Your task to perform on an android device: turn off notifications settings in the gmail app Image 0: 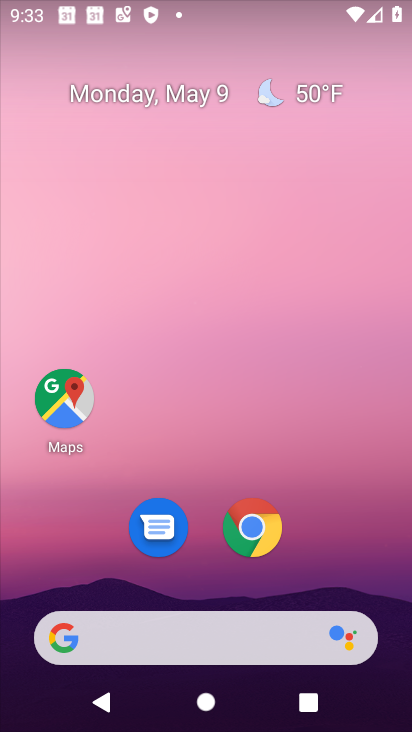
Step 0: drag from (202, 568) to (222, 225)
Your task to perform on an android device: turn off notifications settings in the gmail app Image 1: 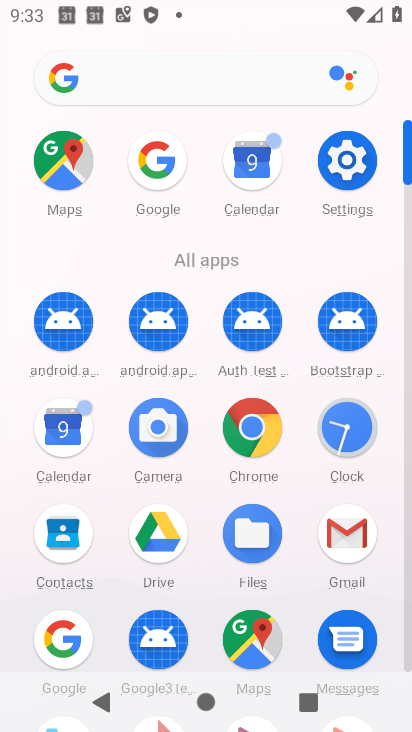
Step 1: click (351, 531)
Your task to perform on an android device: turn off notifications settings in the gmail app Image 2: 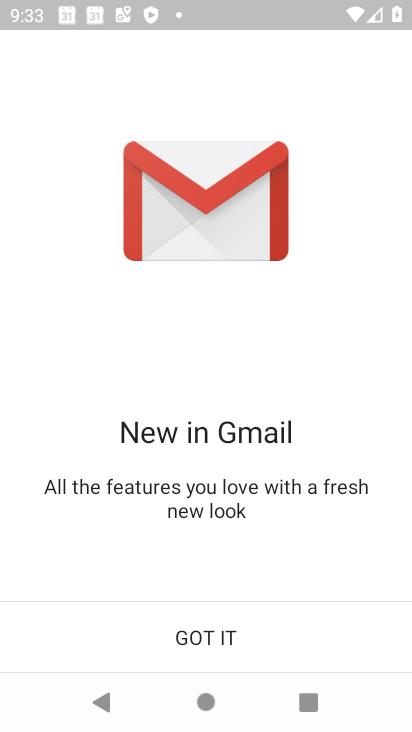
Step 2: click (206, 634)
Your task to perform on an android device: turn off notifications settings in the gmail app Image 3: 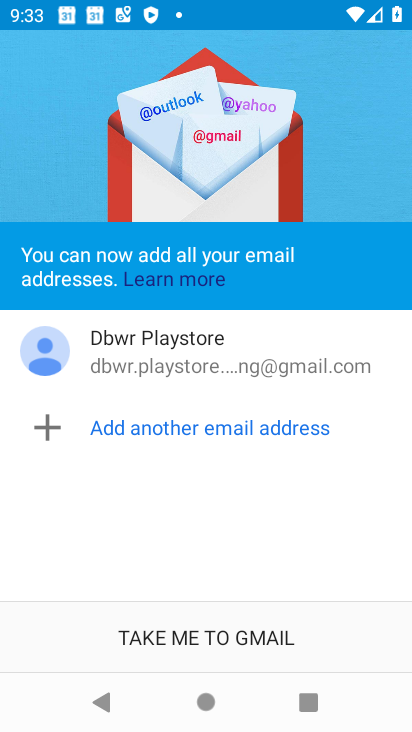
Step 3: click (204, 643)
Your task to perform on an android device: turn off notifications settings in the gmail app Image 4: 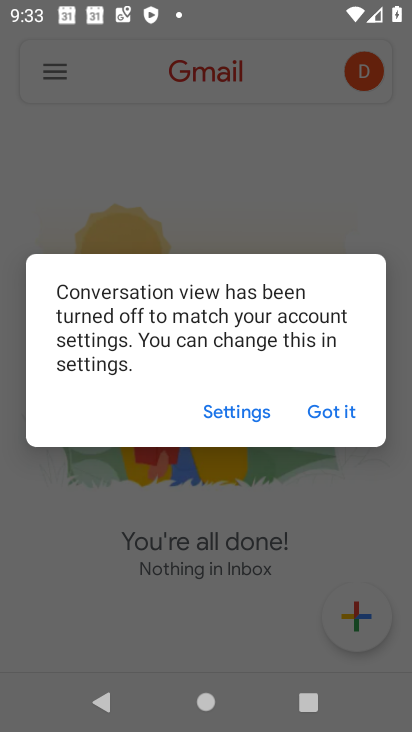
Step 4: click (334, 407)
Your task to perform on an android device: turn off notifications settings in the gmail app Image 5: 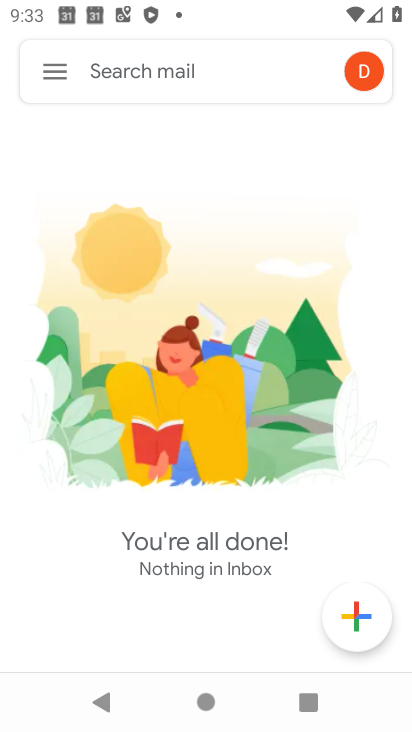
Step 5: click (50, 67)
Your task to perform on an android device: turn off notifications settings in the gmail app Image 6: 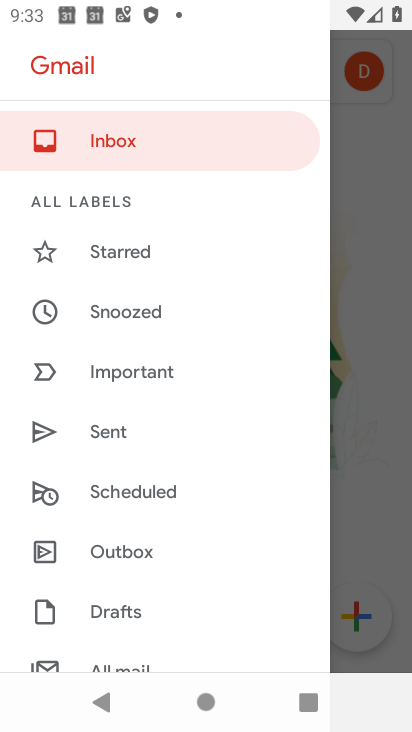
Step 6: drag from (148, 622) to (129, 312)
Your task to perform on an android device: turn off notifications settings in the gmail app Image 7: 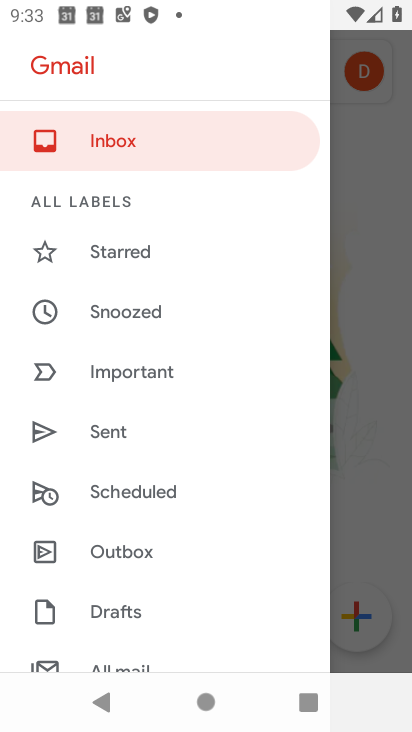
Step 7: drag from (117, 653) to (141, 269)
Your task to perform on an android device: turn off notifications settings in the gmail app Image 8: 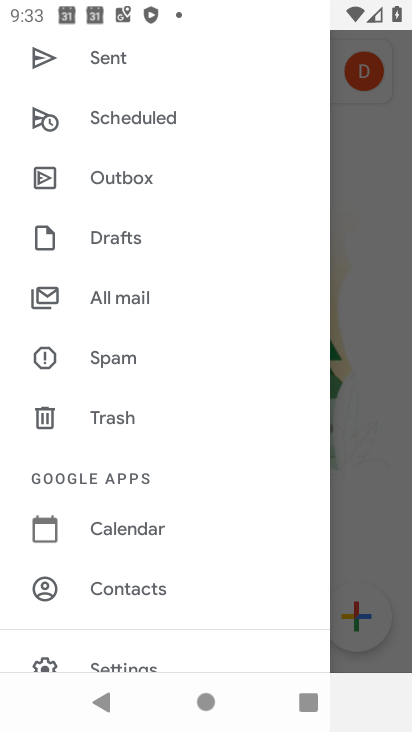
Step 8: drag from (114, 644) to (193, 226)
Your task to perform on an android device: turn off notifications settings in the gmail app Image 9: 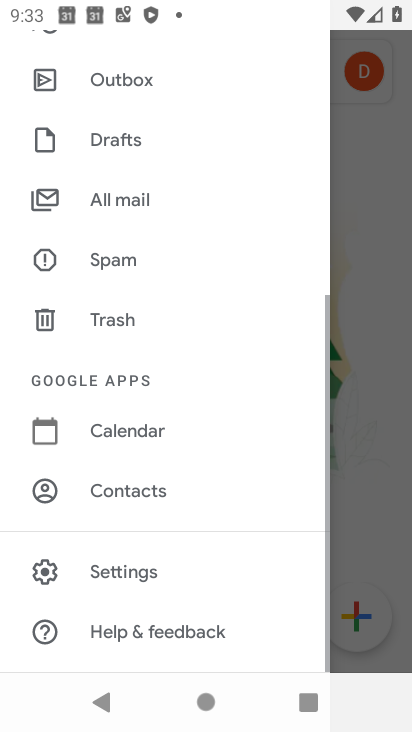
Step 9: click (97, 575)
Your task to perform on an android device: turn off notifications settings in the gmail app Image 10: 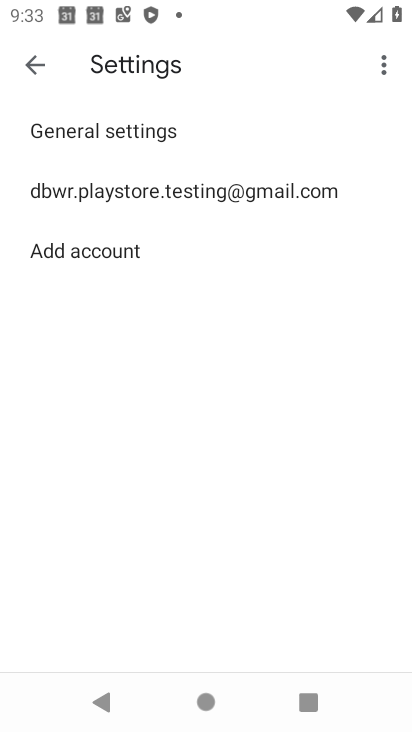
Step 10: click (122, 139)
Your task to perform on an android device: turn off notifications settings in the gmail app Image 11: 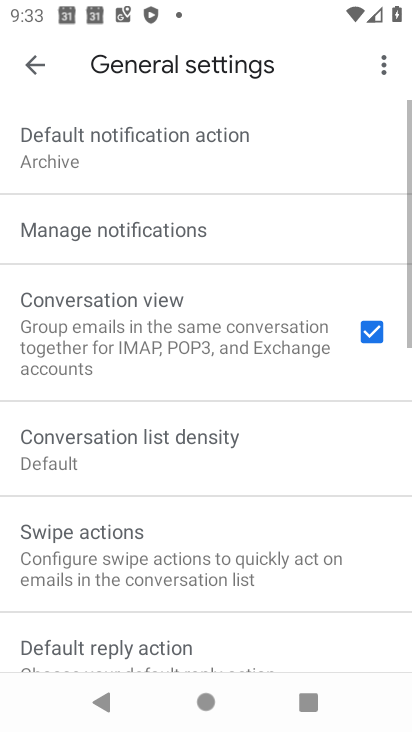
Step 11: click (110, 238)
Your task to perform on an android device: turn off notifications settings in the gmail app Image 12: 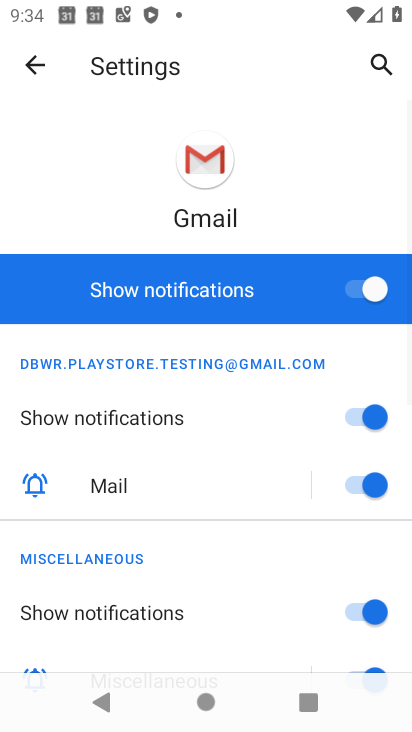
Step 12: click (358, 293)
Your task to perform on an android device: turn off notifications settings in the gmail app Image 13: 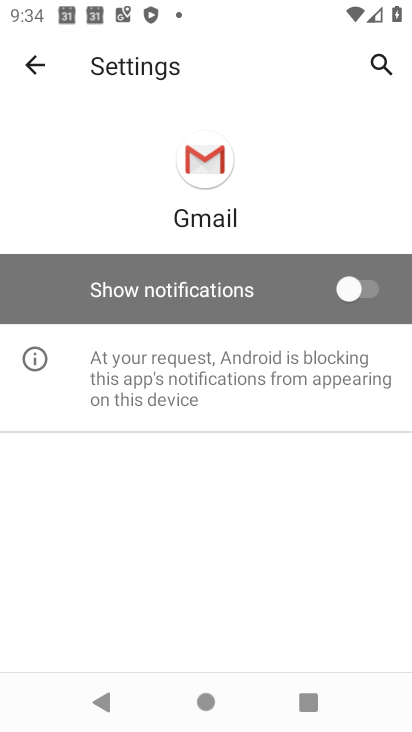
Step 13: task complete